Your task to perform on an android device: Do I have any events today? Image 0: 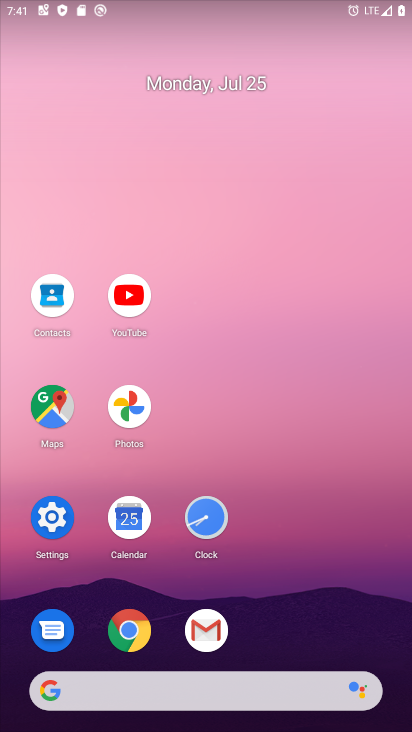
Step 0: click (122, 526)
Your task to perform on an android device: Do I have any events today? Image 1: 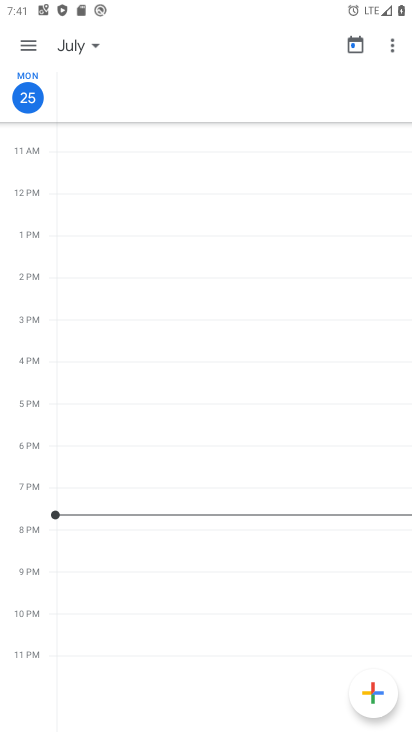
Step 1: task complete